Your task to perform on an android device: turn off sleep mode Image 0: 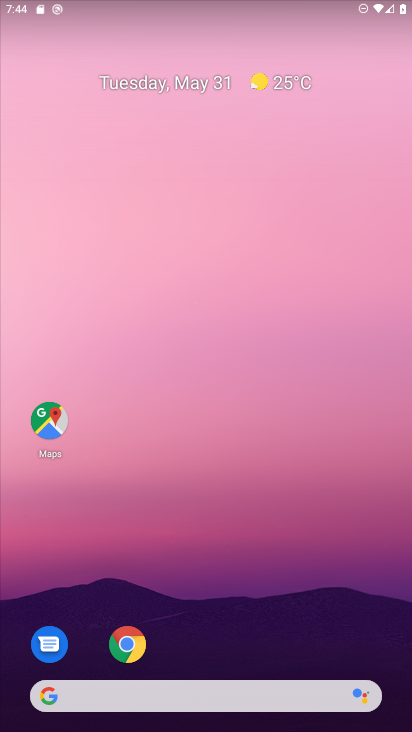
Step 0: press home button
Your task to perform on an android device: turn off sleep mode Image 1: 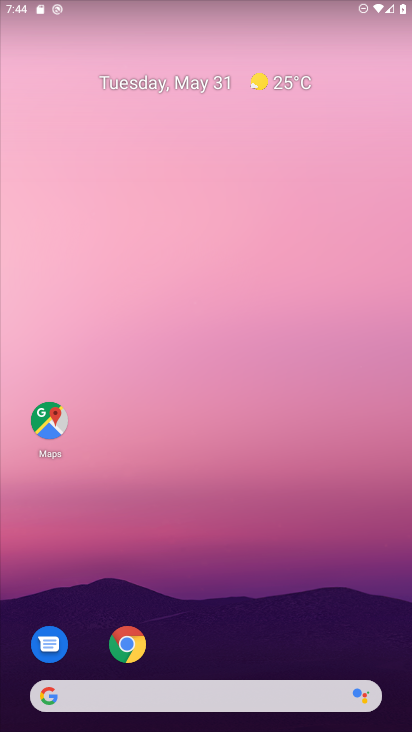
Step 1: drag from (219, 715) to (236, 31)
Your task to perform on an android device: turn off sleep mode Image 2: 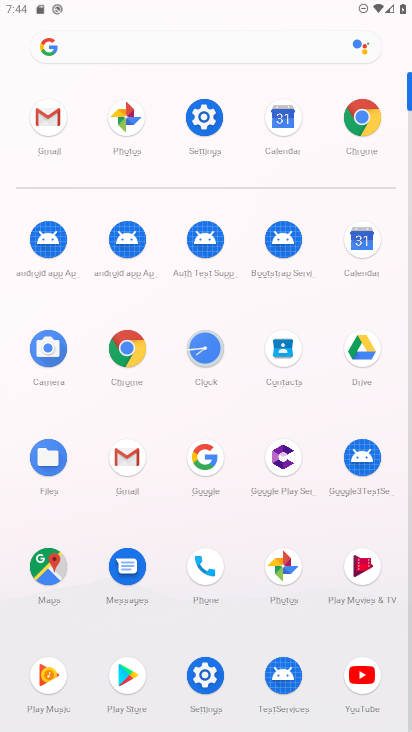
Step 2: click (204, 121)
Your task to perform on an android device: turn off sleep mode Image 3: 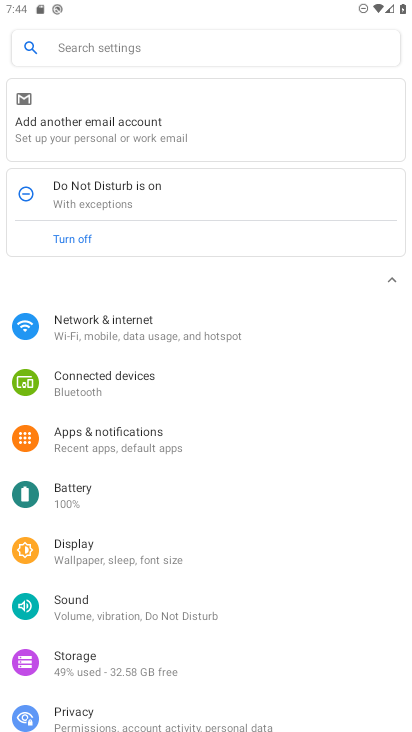
Step 3: click (114, 48)
Your task to perform on an android device: turn off sleep mode Image 4: 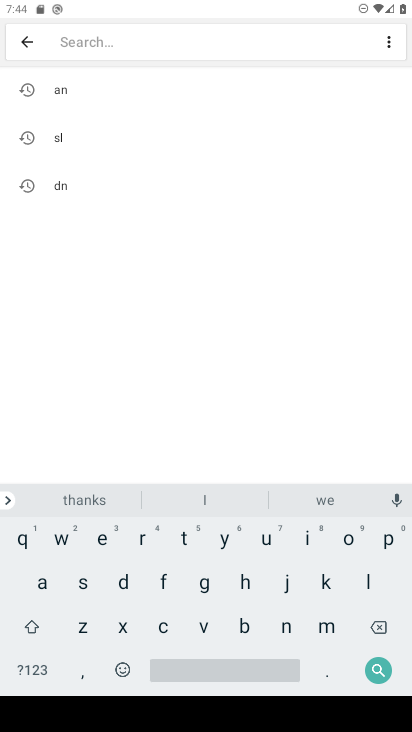
Step 4: click (85, 570)
Your task to perform on an android device: turn off sleep mode Image 5: 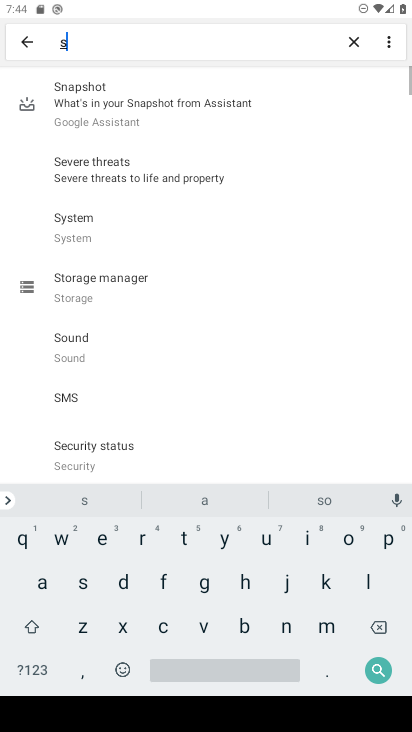
Step 5: click (369, 579)
Your task to perform on an android device: turn off sleep mode Image 6: 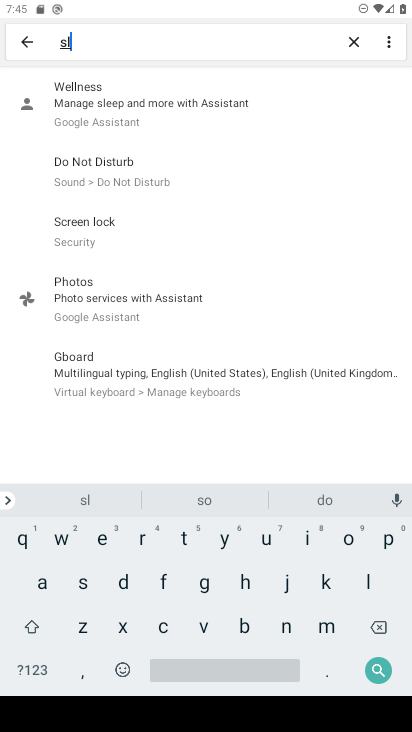
Step 6: click (145, 95)
Your task to perform on an android device: turn off sleep mode Image 7: 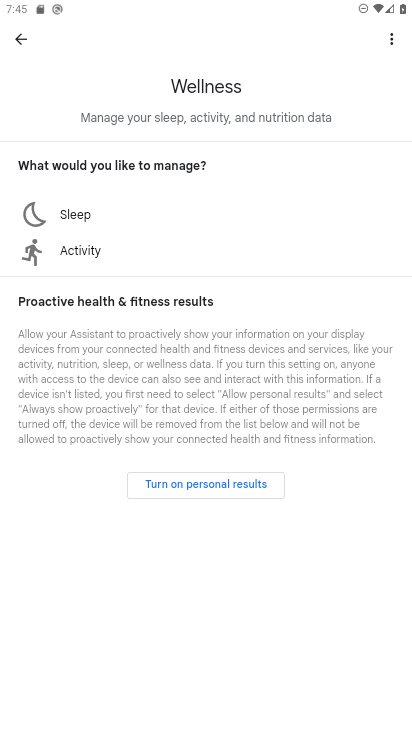
Step 7: click (63, 211)
Your task to perform on an android device: turn off sleep mode Image 8: 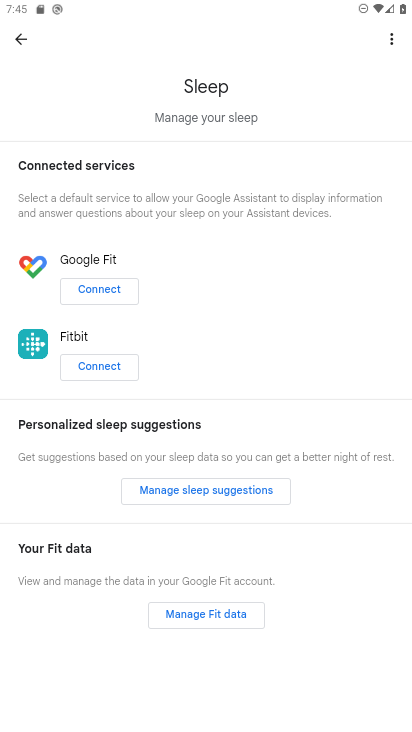
Step 8: task complete